Your task to perform on an android device: open device folders in google photos Image 0: 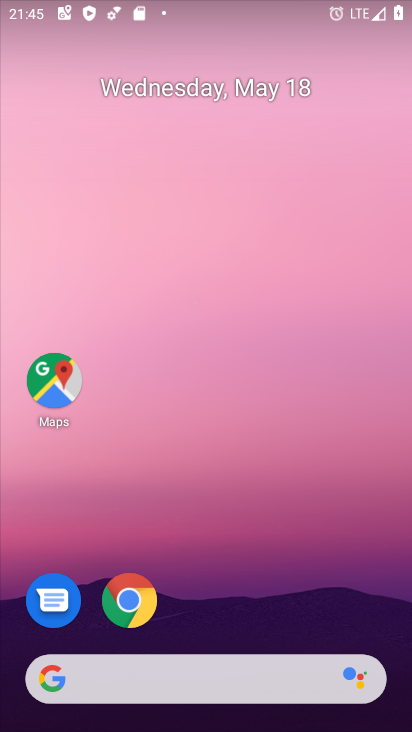
Step 0: drag from (225, 611) to (302, 63)
Your task to perform on an android device: open device folders in google photos Image 1: 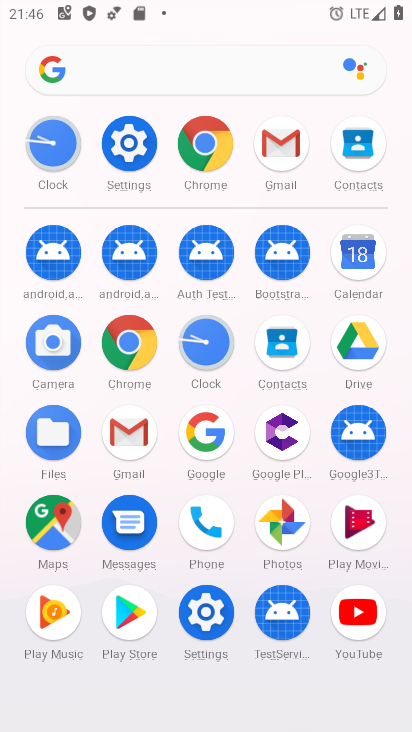
Step 1: click (281, 518)
Your task to perform on an android device: open device folders in google photos Image 2: 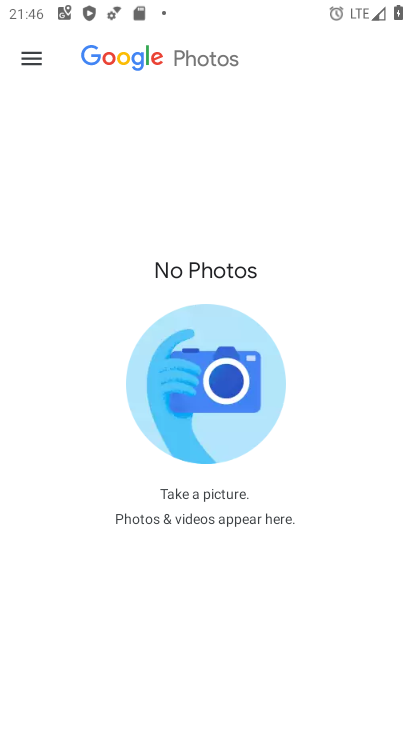
Step 2: click (35, 57)
Your task to perform on an android device: open device folders in google photos Image 3: 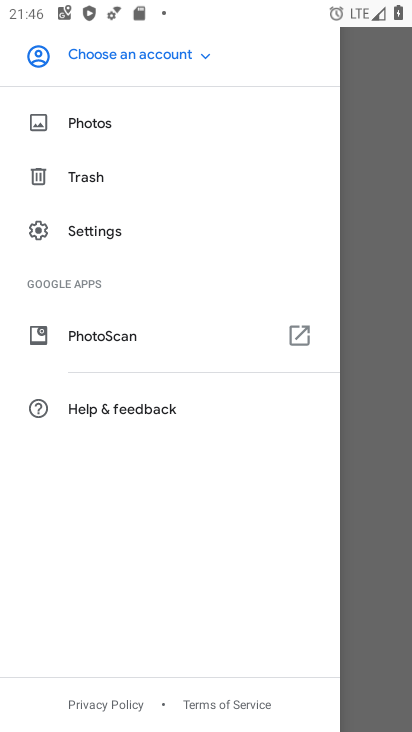
Step 3: task complete